Your task to perform on an android device: change text size in settings app Image 0: 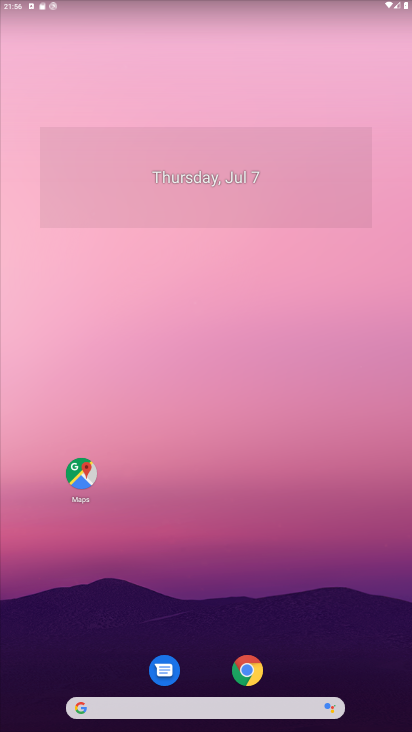
Step 0: press home button
Your task to perform on an android device: change text size in settings app Image 1: 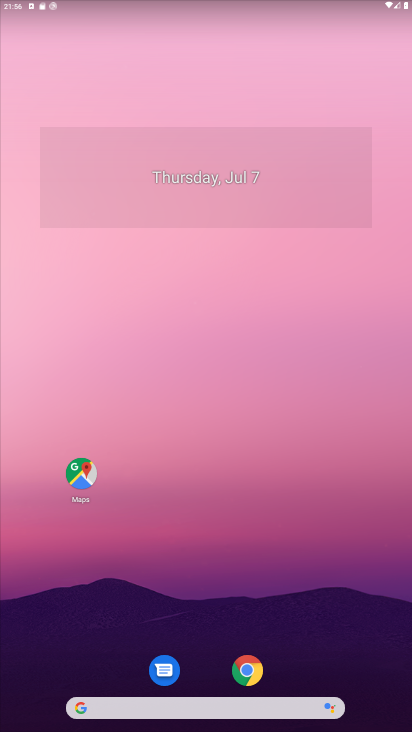
Step 1: drag from (52, 667) to (279, 202)
Your task to perform on an android device: change text size in settings app Image 2: 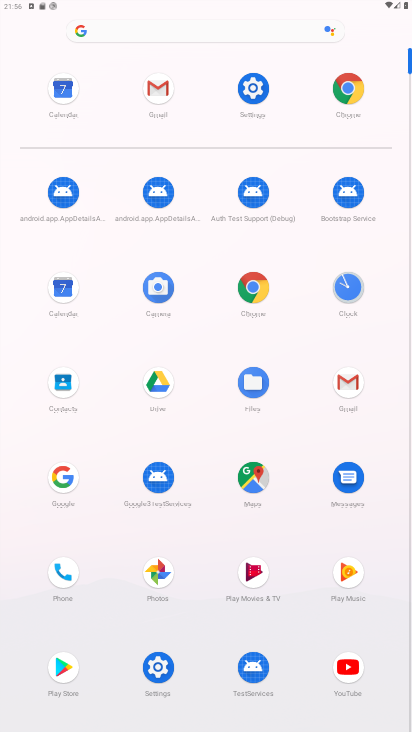
Step 2: click (162, 667)
Your task to perform on an android device: change text size in settings app Image 3: 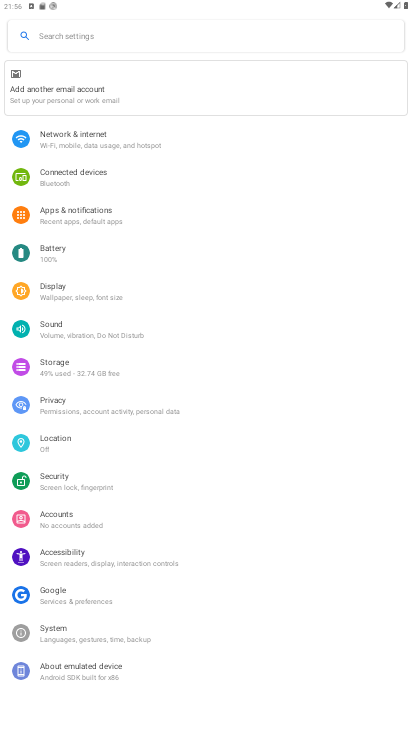
Step 3: task complete